Your task to perform on an android device: turn off location history Image 0: 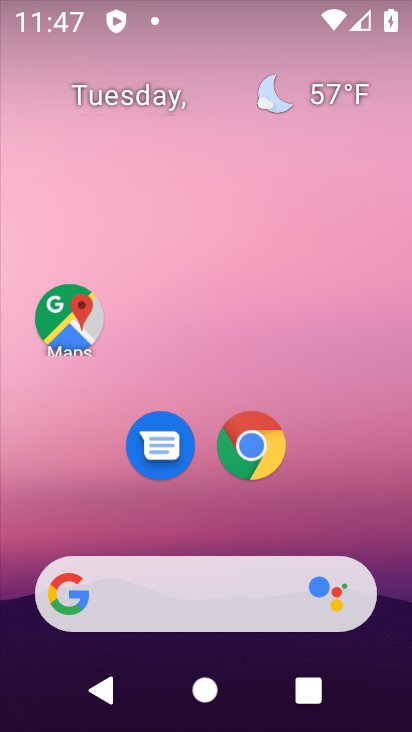
Step 0: drag from (323, 205) to (322, 141)
Your task to perform on an android device: turn off location history Image 1: 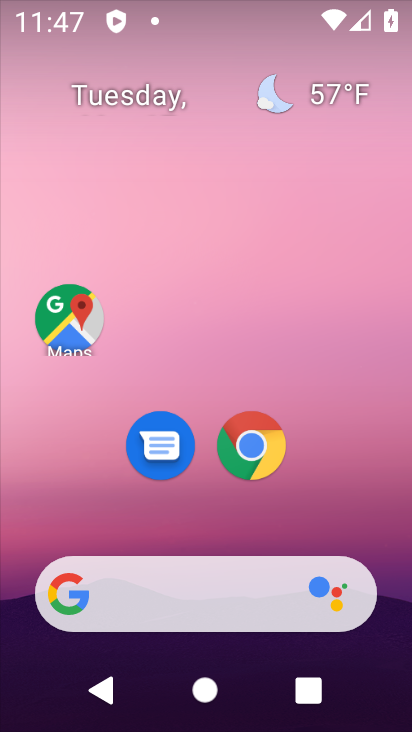
Step 1: drag from (360, 477) to (340, 175)
Your task to perform on an android device: turn off location history Image 2: 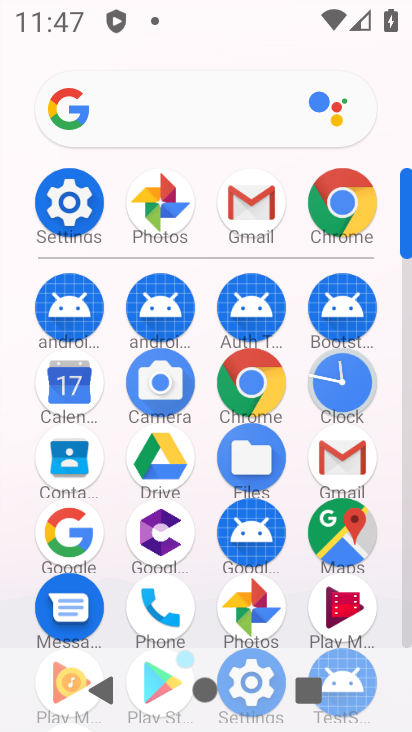
Step 2: click (80, 213)
Your task to perform on an android device: turn off location history Image 3: 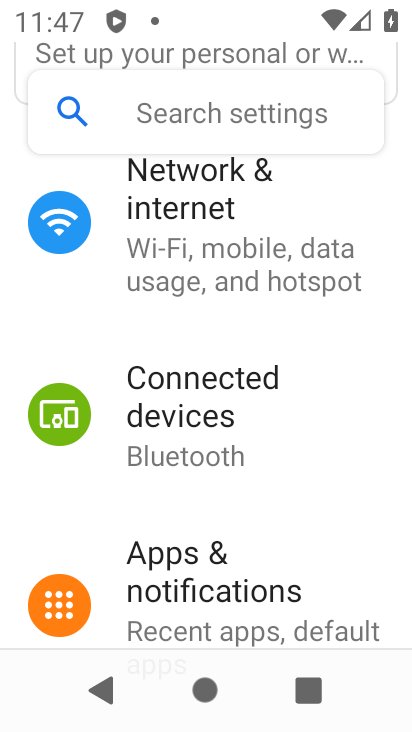
Step 3: drag from (349, 343) to (340, 524)
Your task to perform on an android device: turn off location history Image 4: 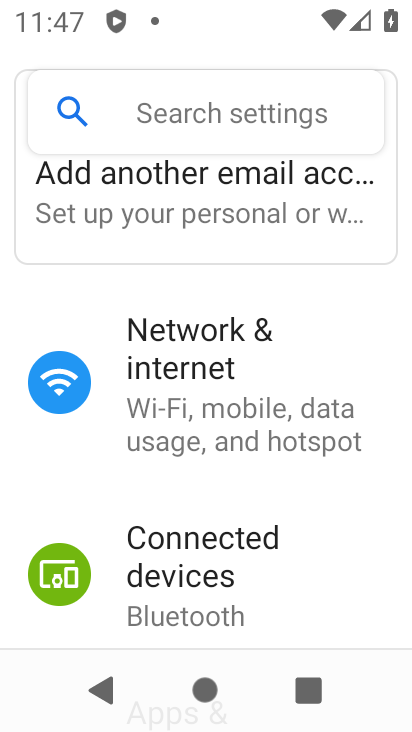
Step 4: drag from (352, 301) to (336, 538)
Your task to perform on an android device: turn off location history Image 5: 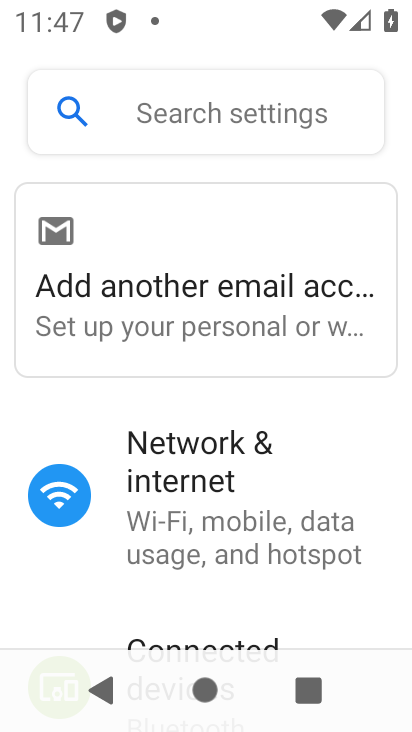
Step 5: drag from (332, 601) to (342, 351)
Your task to perform on an android device: turn off location history Image 6: 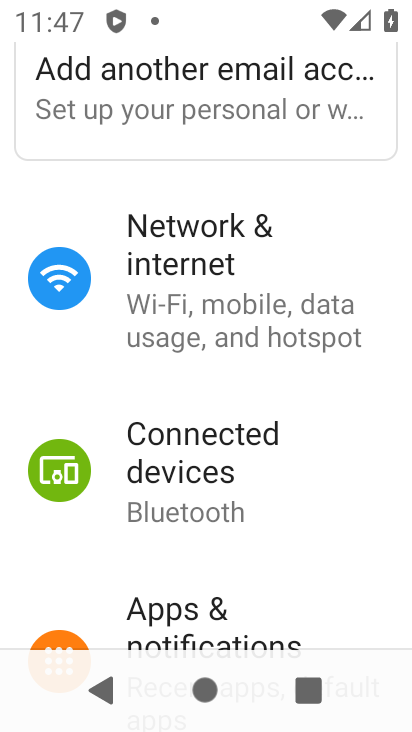
Step 6: drag from (326, 538) to (319, 350)
Your task to perform on an android device: turn off location history Image 7: 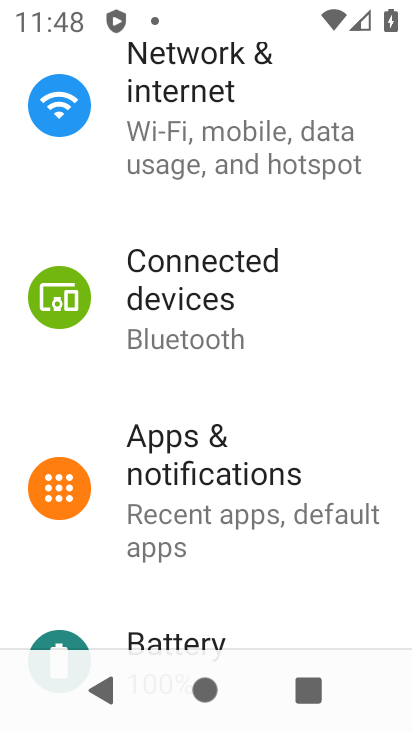
Step 7: drag from (301, 596) to (325, 377)
Your task to perform on an android device: turn off location history Image 8: 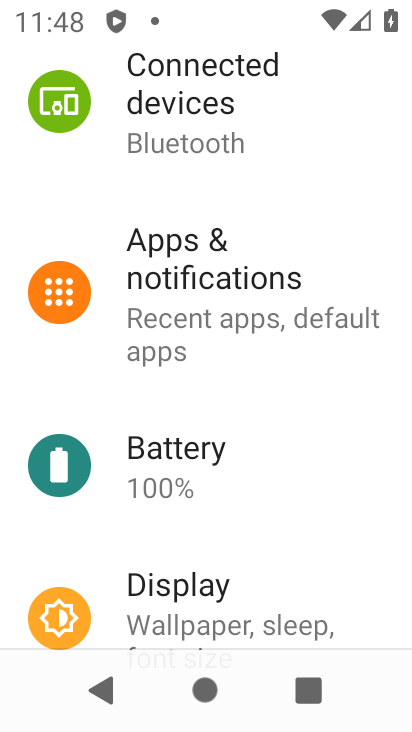
Step 8: drag from (318, 579) to (328, 409)
Your task to perform on an android device: turn off location history Image 9: 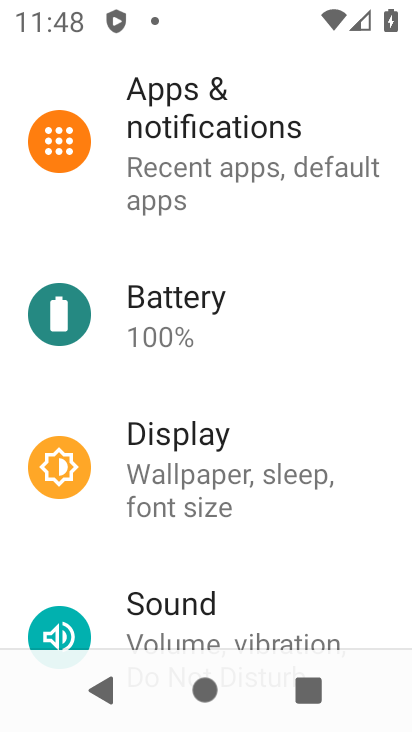
Step 9: drag from (337, 587) to (347, 382)
Your task to perform on an android device: turn off location history Image 10: 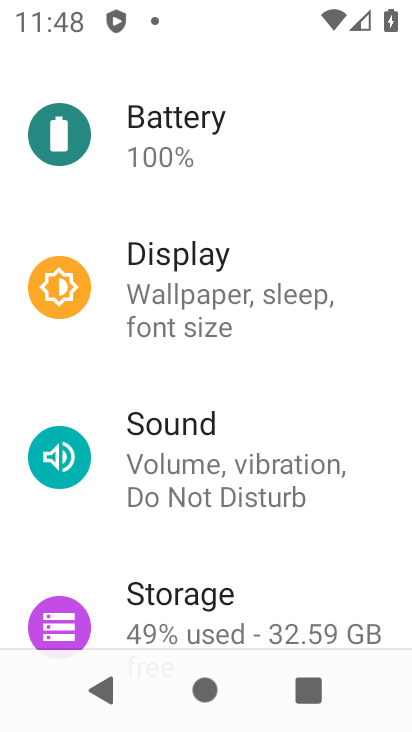
Step 10: drag from (321, 547) to (335, 369)
Your task to perform on an android device: turn off location history Image 11: 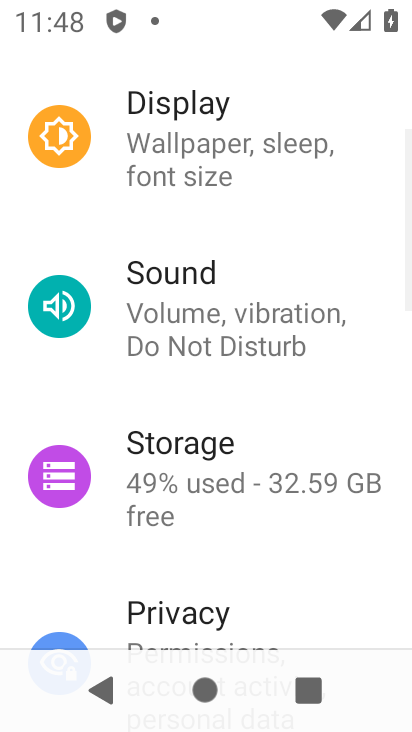
Step 11: drag from (316, 581) to (322, 347)
Your task to perform on an android device: turn off location history Image 12: 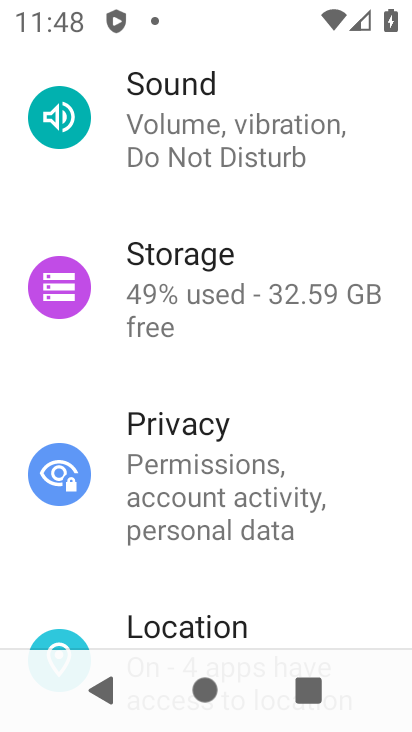
Step 12: drag from (353, 562) to (361, 403)
Your task to perform on an android device: turn off location history Image 13: 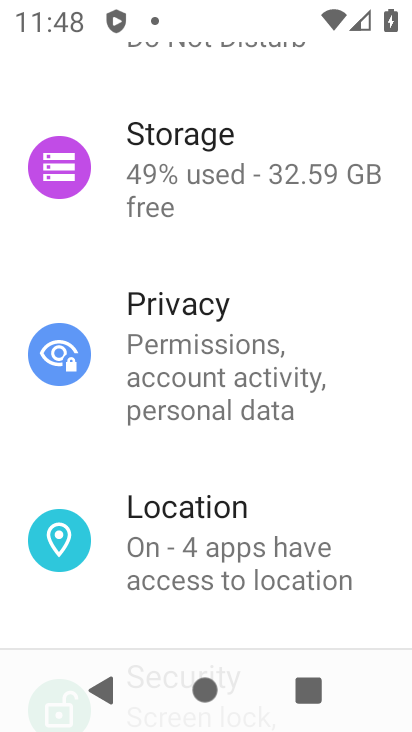
Step 13: drag from (339, 505) to (338, 305)
Your task to perform on an android device: turn off location history Image 14: 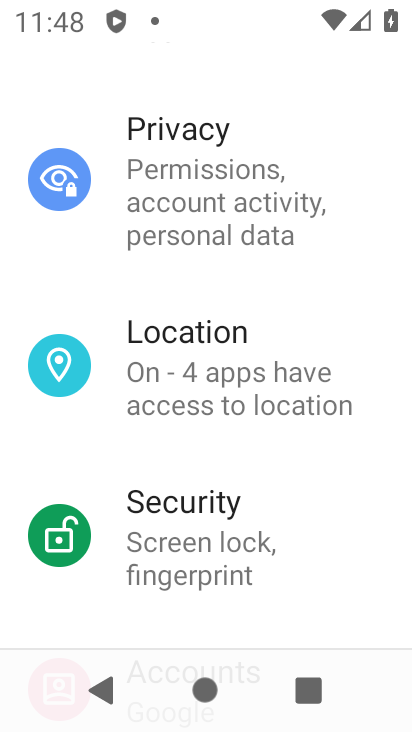
Step 14: click (253, 364)
Your task to perform on an android device: turn off location history Image 15: 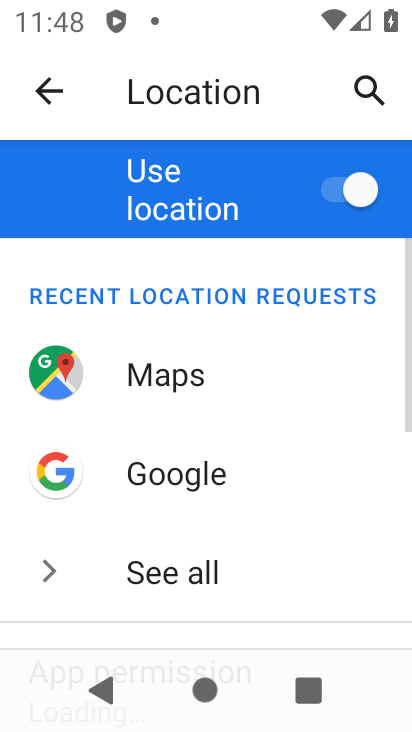
Step 15: drag from (312, 576) to (293, 330)
Your task to perform on an android device: turn off location history Image 16: 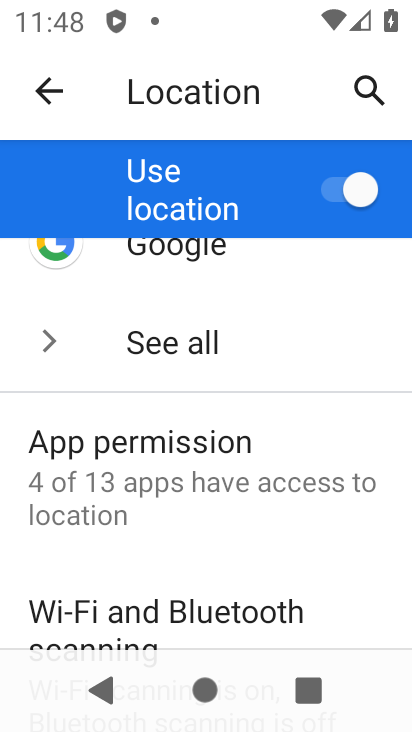
Step 16: drag from (288, 560) to (299, 382)
Your task to perform on an android device: turn off location history Image 17: 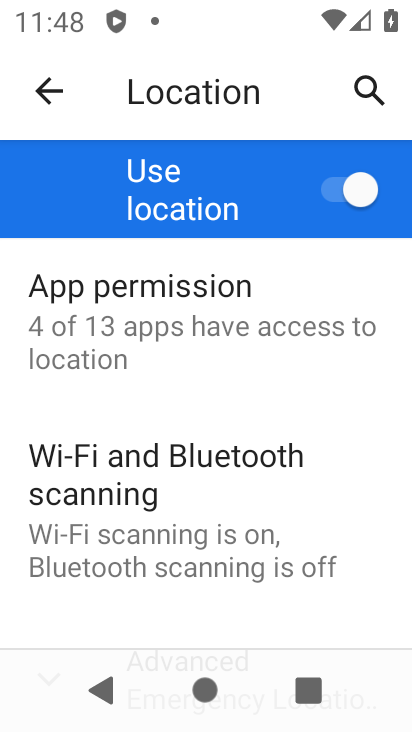
Step 17: drag from (340, 607) to (335, 391)
Your task to perform on an android device: turn off location history Image 18: 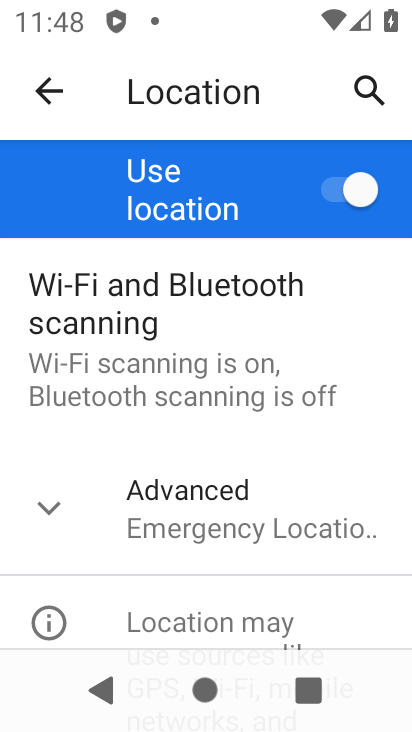
Step 18: click (259, 515)
Your task to perform on an android device: turn off location history Image 19: 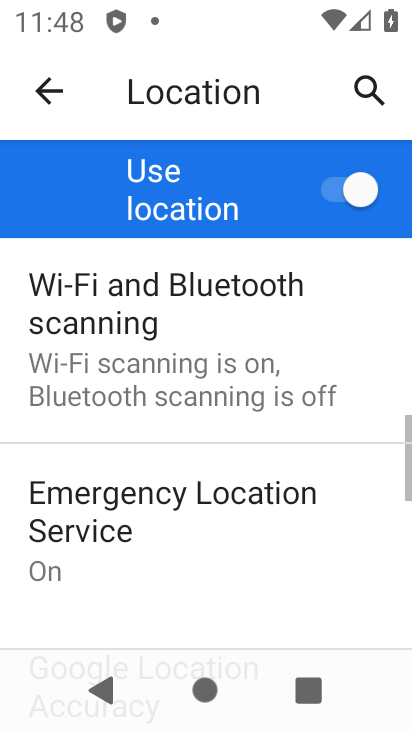
Step 19: drag from (278, 587) to (285, 367)
Your task to perform on an android device: turn off location history Image 20: 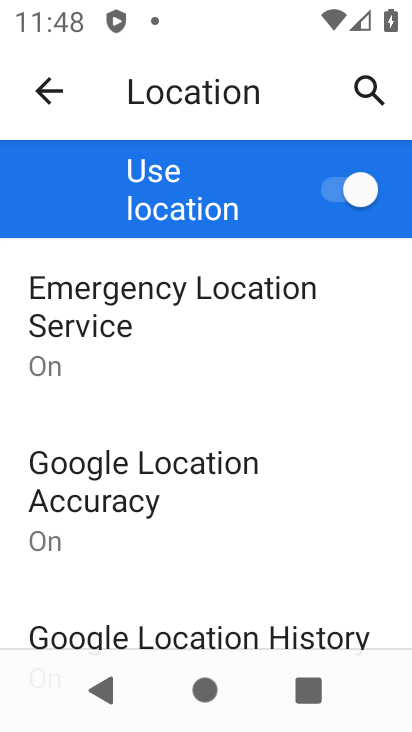
Step 20: drag from (288, 571) to (280, 429)
Your task to perform on an android device: turn off location history Image 21: 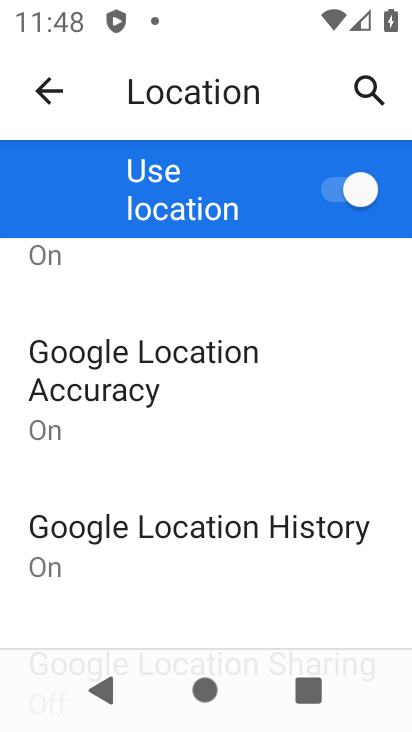
Step 21: click (286, 553)
Your task to perform on an android device: turn off location history Image 22: 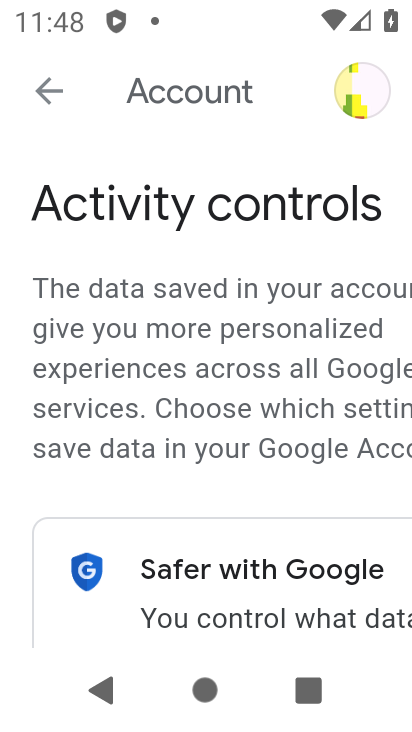
Step 22: drag from (242, 579) to (241, 327)
Your task to perform on an android device: turn off location history Image 23: 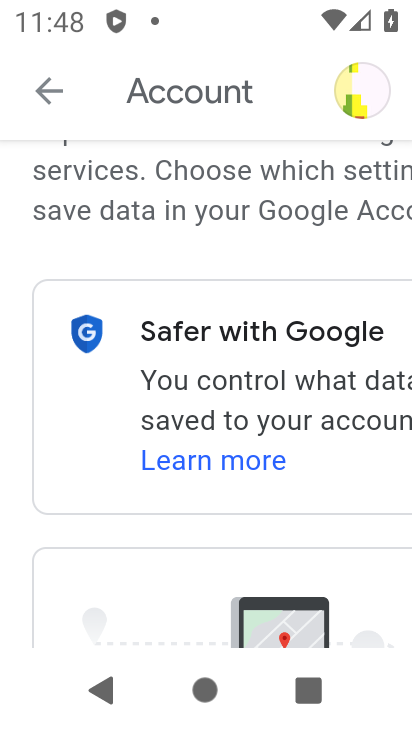
Step 23: drag from (211, 552) to (225, 342)
Your task to perform on an android device: turn off location history Image 24: 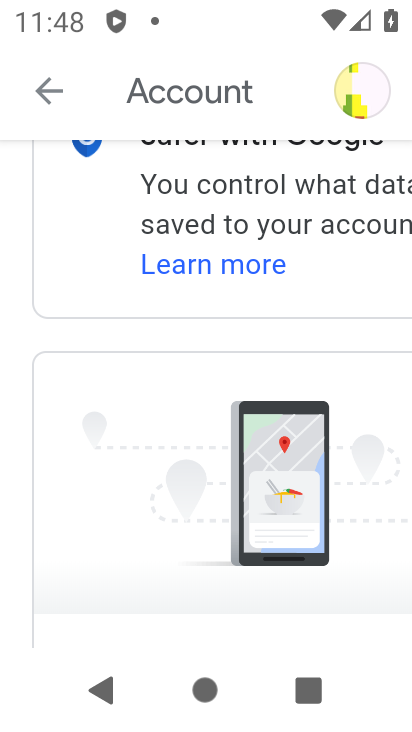
Step 24: drag from (157, 587) to (165, 324)
Your task to perform on an android device: turn off location history Image 25: 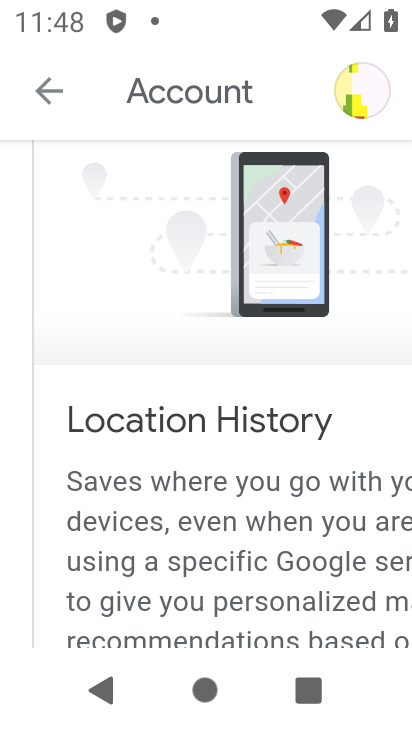
Step 25: drag from (180, 552) to (185, 354)
Your task to perform on an android device: turn off location history Image 26: 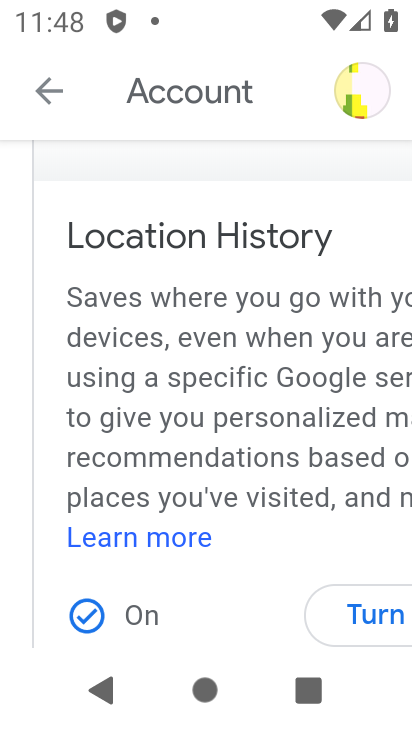
Step 26: click (359, 614)
Your task to perform on an android device: turn off location history Image 27: 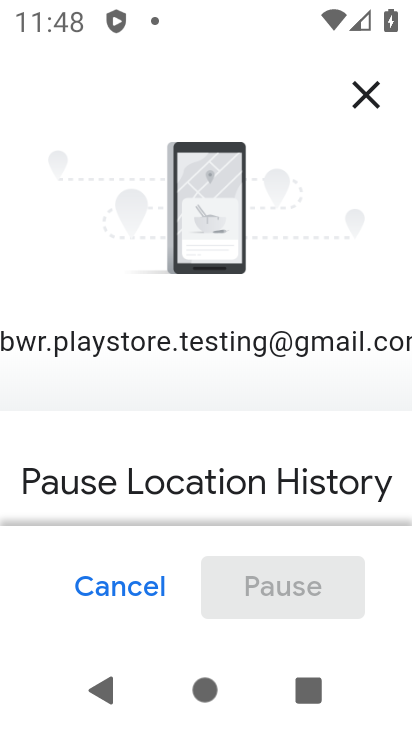
Step 27: drag from (247, 464) to (252, 273)
Your task to perform on an android device: turn off location history Image 28: 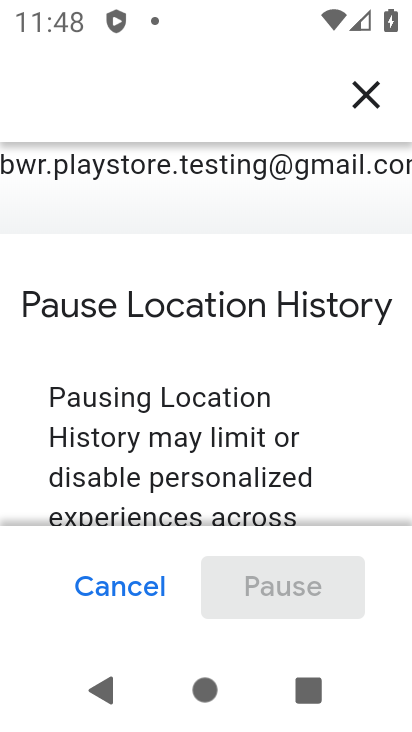
Step 28: drag from (197, 488) to (195, 294)
Your task to perform on an android device: turn off location history Image 29: 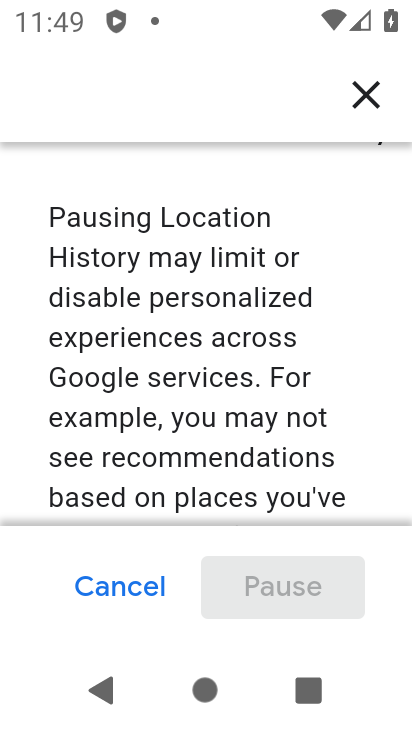
Step 29: drag from (166, 473) to (169, 284)
Your task to perform on an android device: turn off location history Image 30: 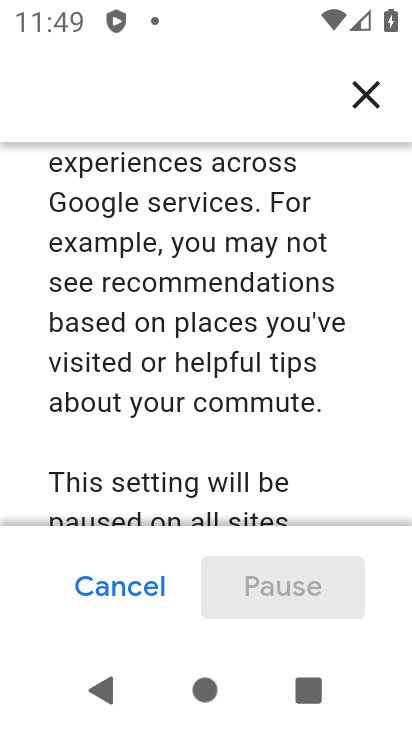
Step 30: drag from (169, 455) to (169, 282)
Your task to perform on an android device: turn off location history Image 31: 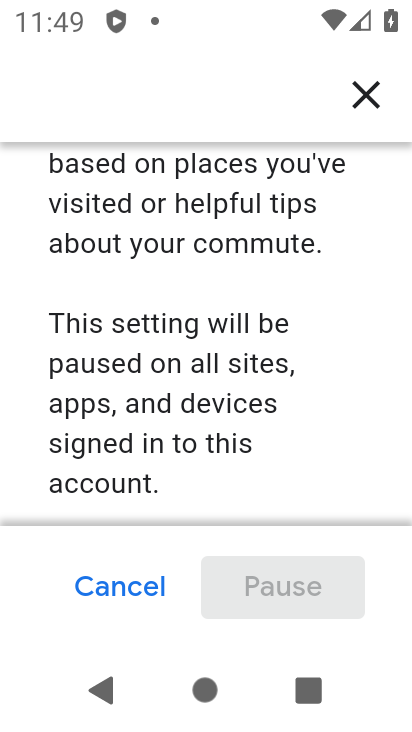
Step 31: drag from (163, 457) to (177, 282)
Your task to perform on an android device: turn off location history Image 32: 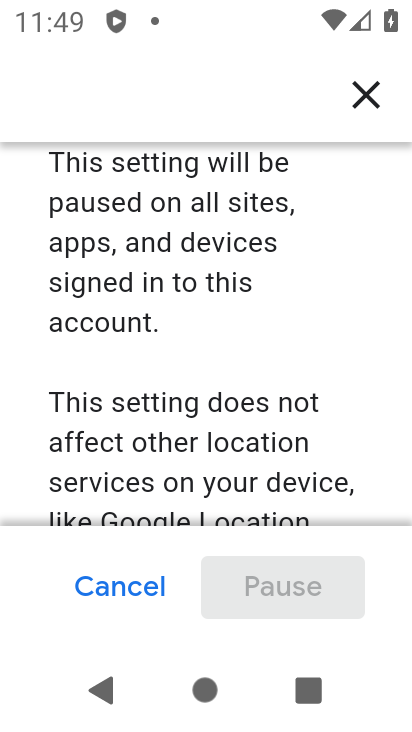
Step 32: drag from (157, 457) to (169, 226)
Your task to perform on an android device: turn off location history Image 33: 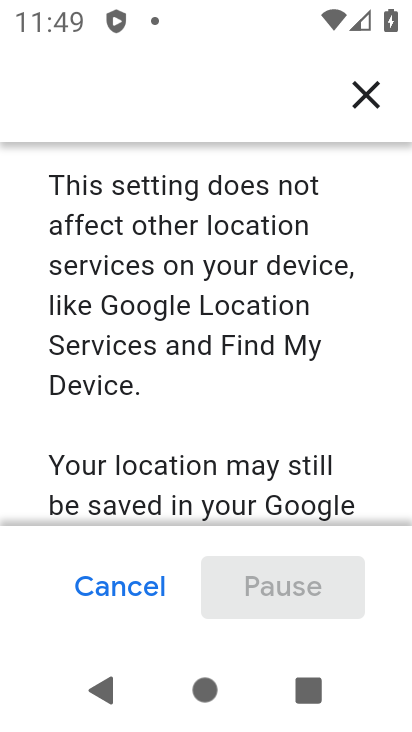
Step 33: drag from (179, 461) to (181, 283)
Your task to perform on an android device: turn off location history Image 34: 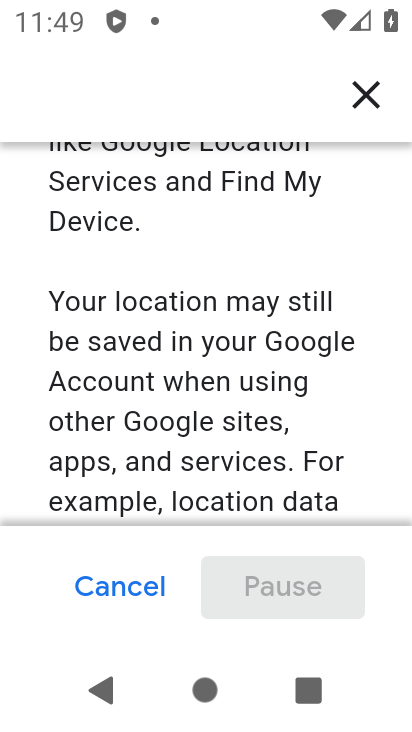
Step 34: drag from (181, 462) to (193, 285)
Your task to perform on an android device: turn off location history Image 35: 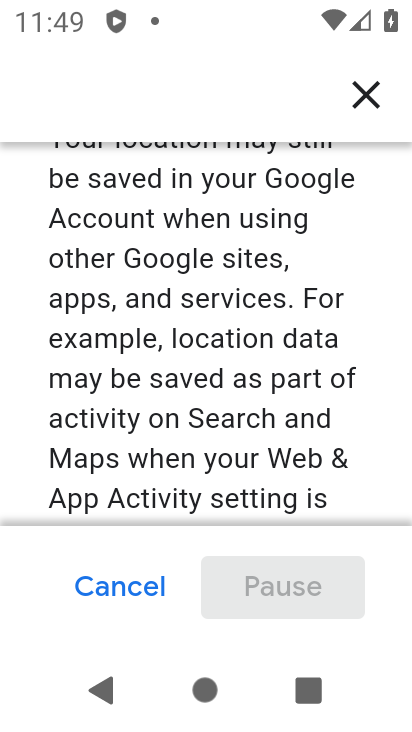
Step 35: drag from (169, 445) to (173, 266)
Your task to perform on an android device: turn off location history Image 36: 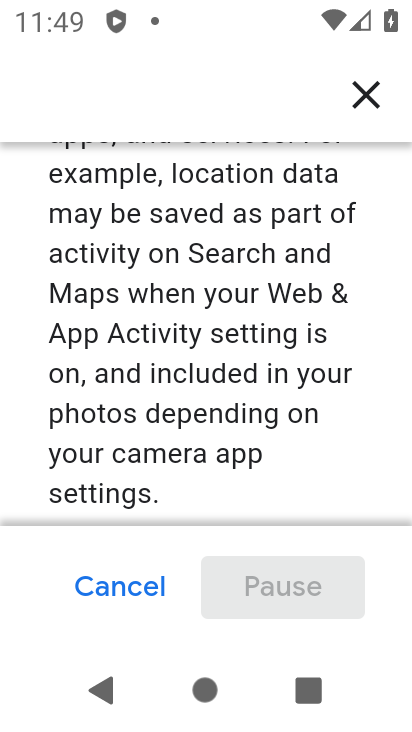
Step 36: drag from (172, 443) to (179, 210)
Your task to perform on an android device: turn off location history Image 37: 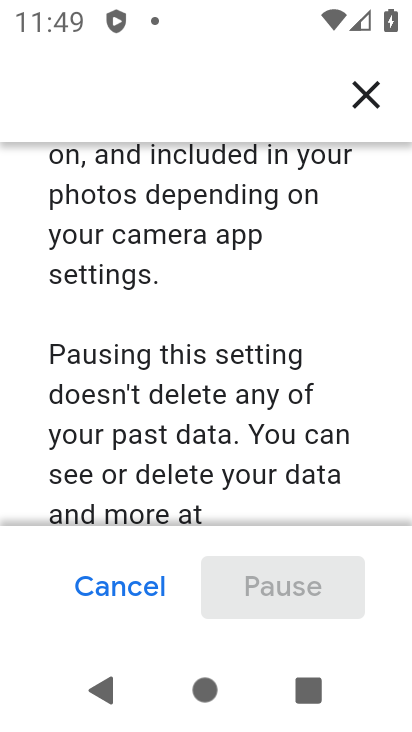
Step 37: drag from (189, 440) to (187, 222)
Your task to perform on an android device: turn off location history Image 38: 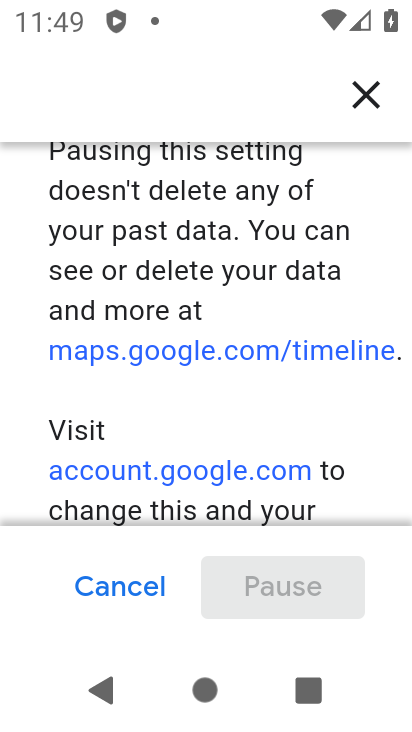
Step 38: drag from (164, 419) to (172, 239)
Your task to perform on an android device: turn off location history Image 39: 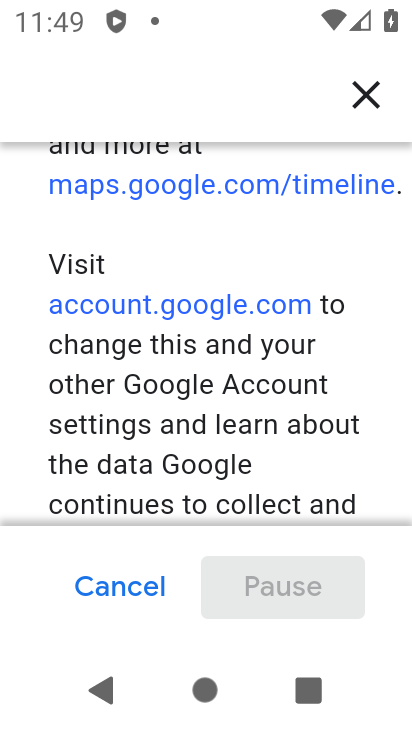
Step 39: drag from (165, 485) to (167, 302)
Your task to perform on an android device: turn off location history Image 40: 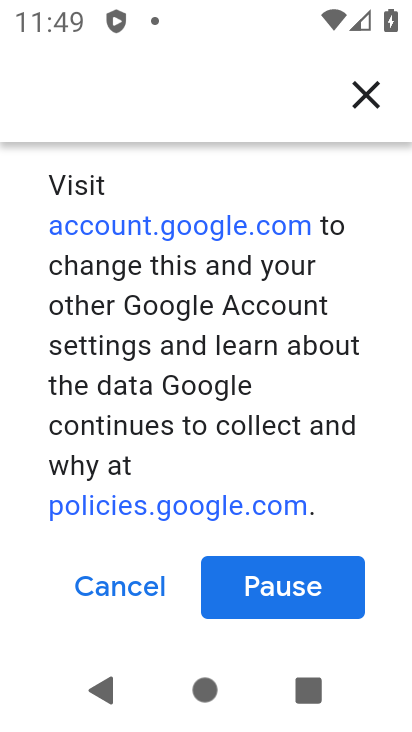
Step 40: click (269, 622)
Your task to perform on an android device: turn off location history Image 41: 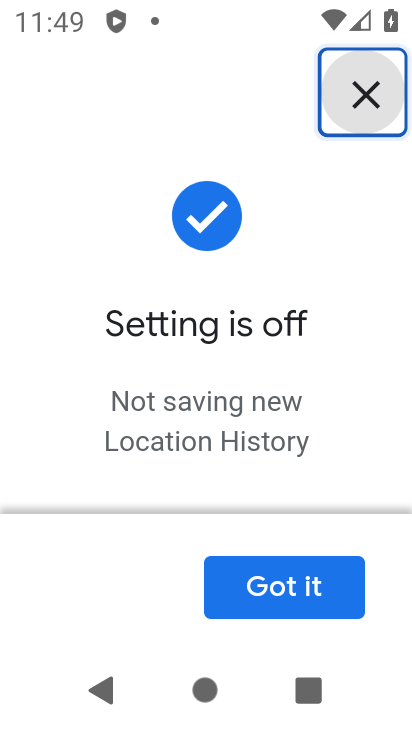
Step 41: task complete